Your task to perform on an android device: set the stopwatch Image 0: 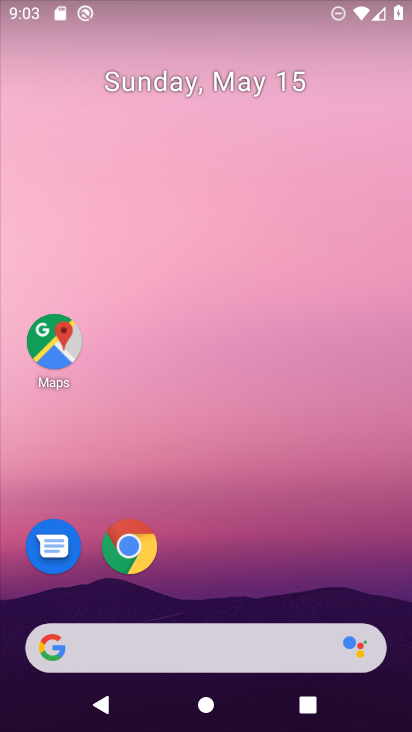
Step 0: drag from (293, 513) to (275, 56)
Your task to perform on an android device: set the stopwatch Image 1: 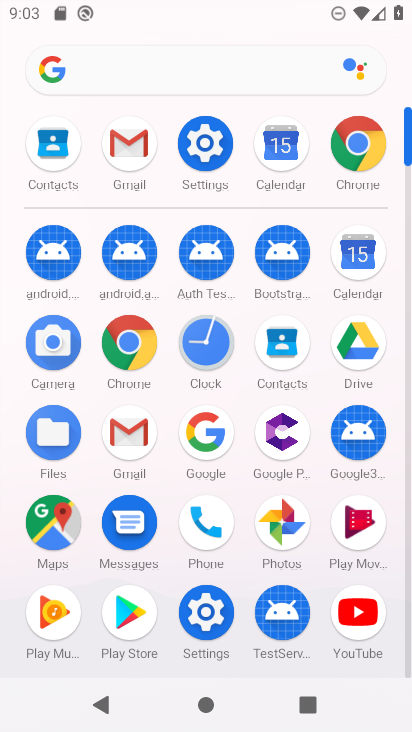
Step 1: click (191, 341)
Your task to perform on an android device: set the stopwatch Image 2: 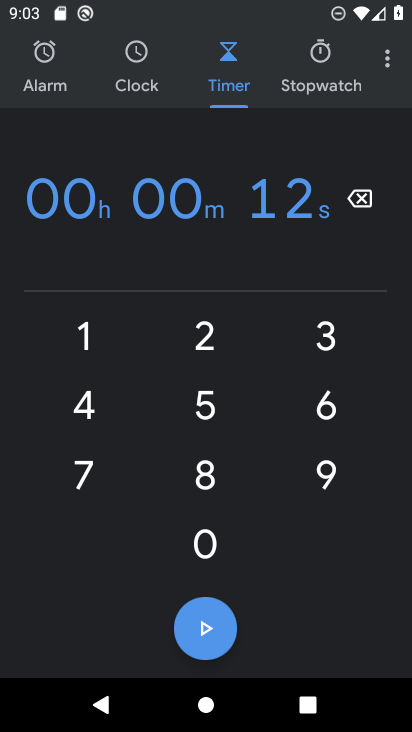
Step 2: click (306, 63)
Your task to perform on an android device: set the stopwatch Image 3: 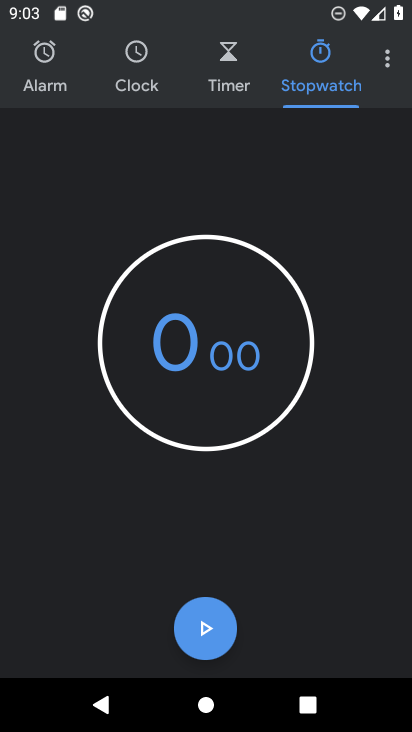
Step 3: click (250, 368)
Your task to perform on an android device: set the stopwatch Image 4: 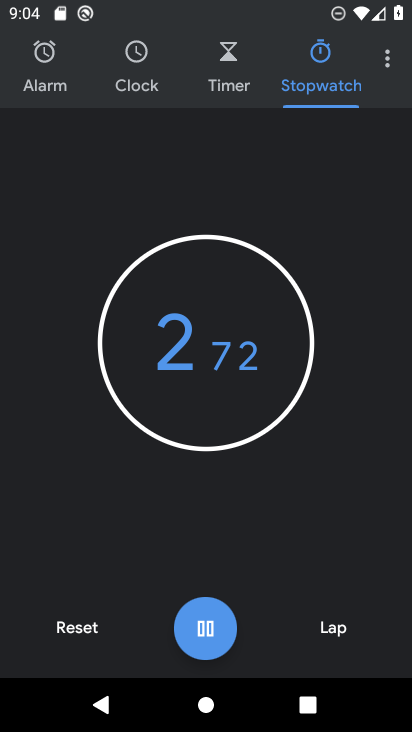
Step 4: click (192, 621)
Your task to perform on an android device: set the stopwatch Image 5: 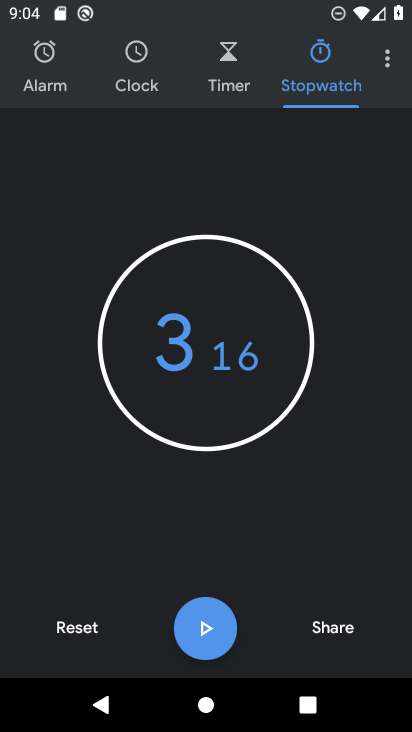
Step 5: task complete